Your task to perform on an android device: Open Google Image 0: 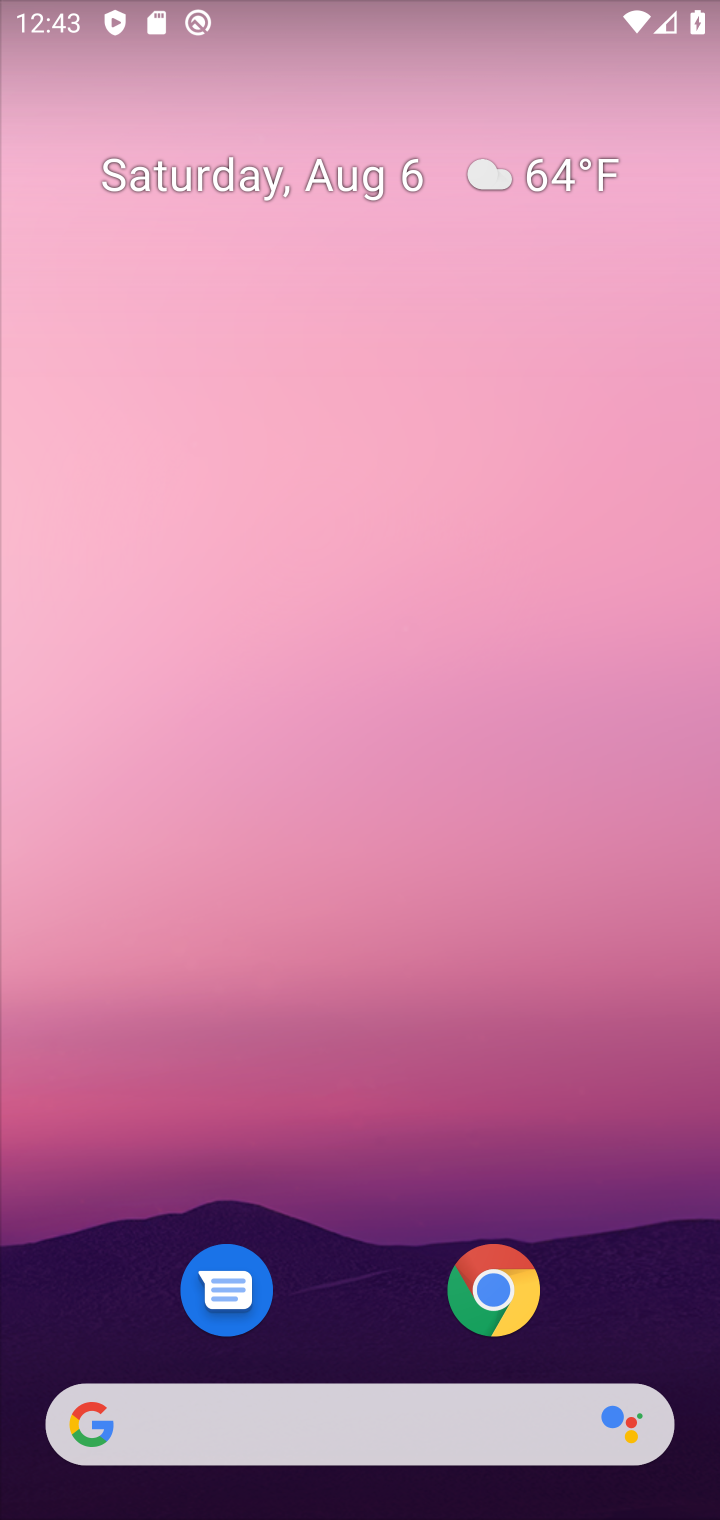
Step 0: click (367, 1422)
Your task to perform on an android device: Open Google Image 1: 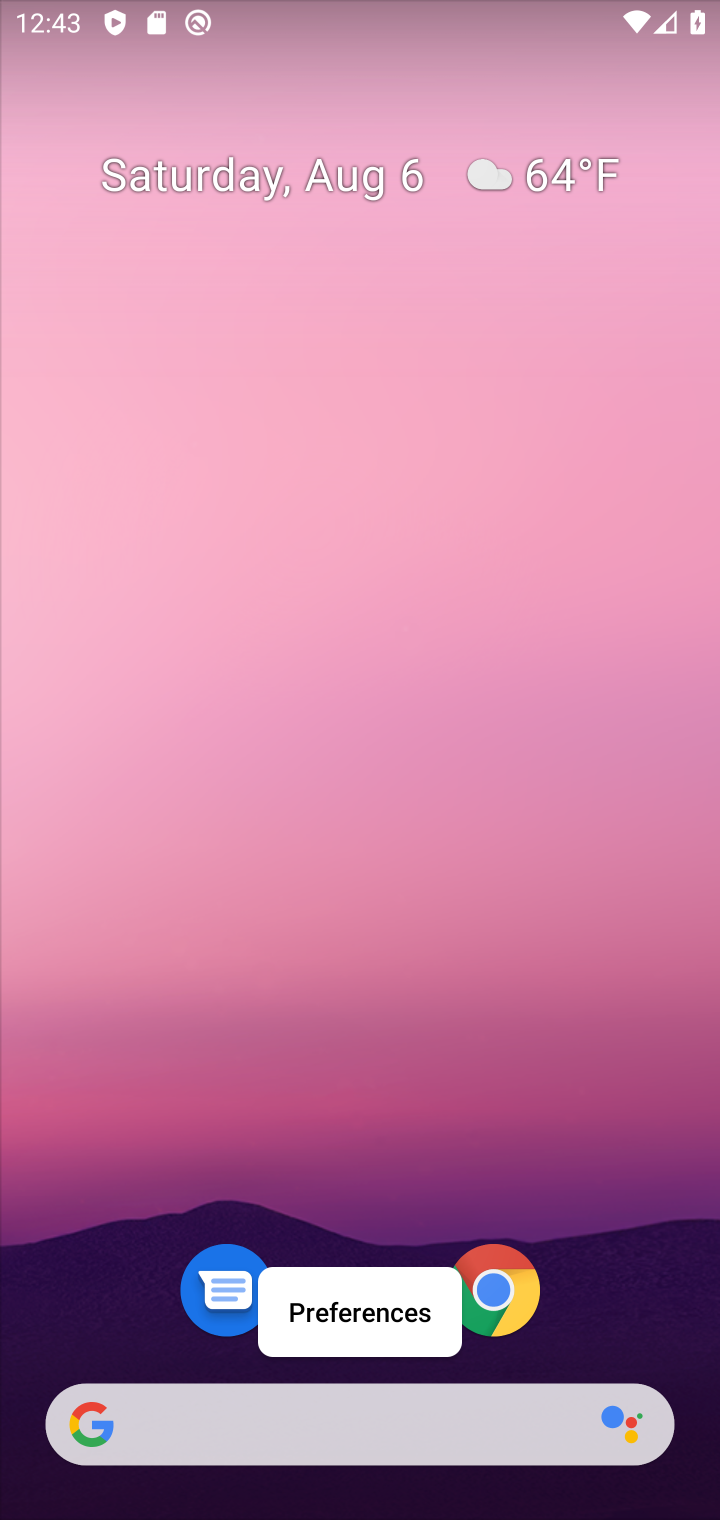
Step 1: click (351, 1432)
Your task to perform on an android device: Open Google Image 2: 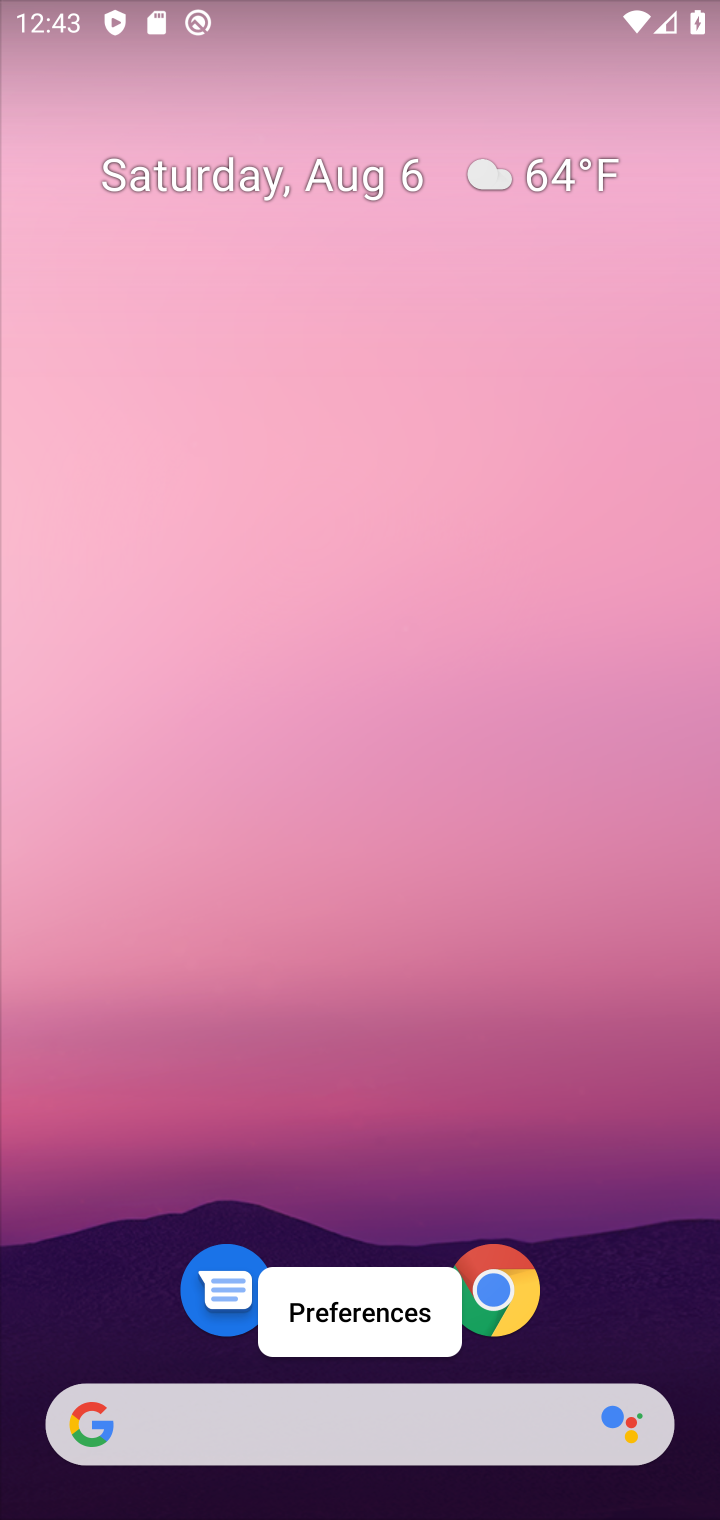
Step 2: click (257, 1413)
Your task to perform on an android device: Open Google Image 3: 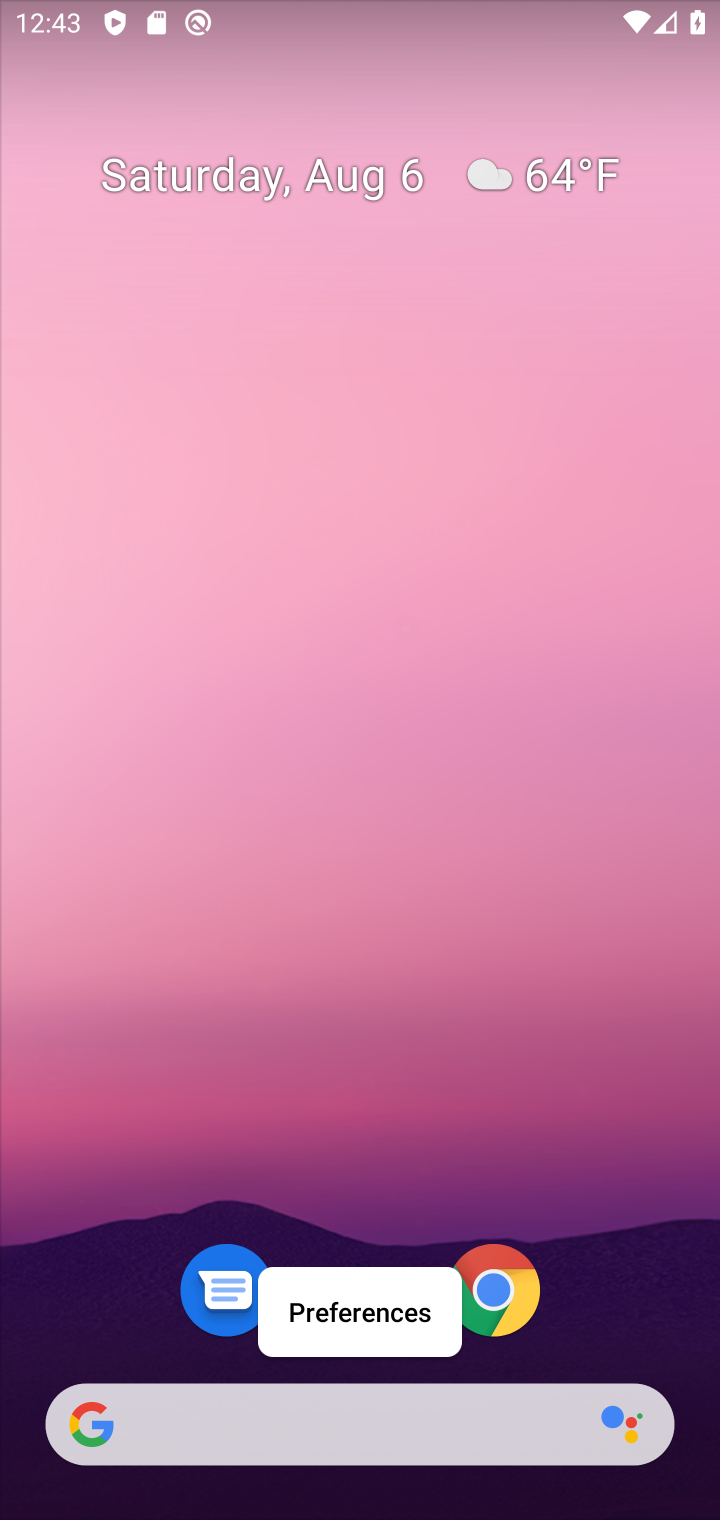
Step 3: click (418, 1443)
Your task to perform on an android device: Open Google Image 4: 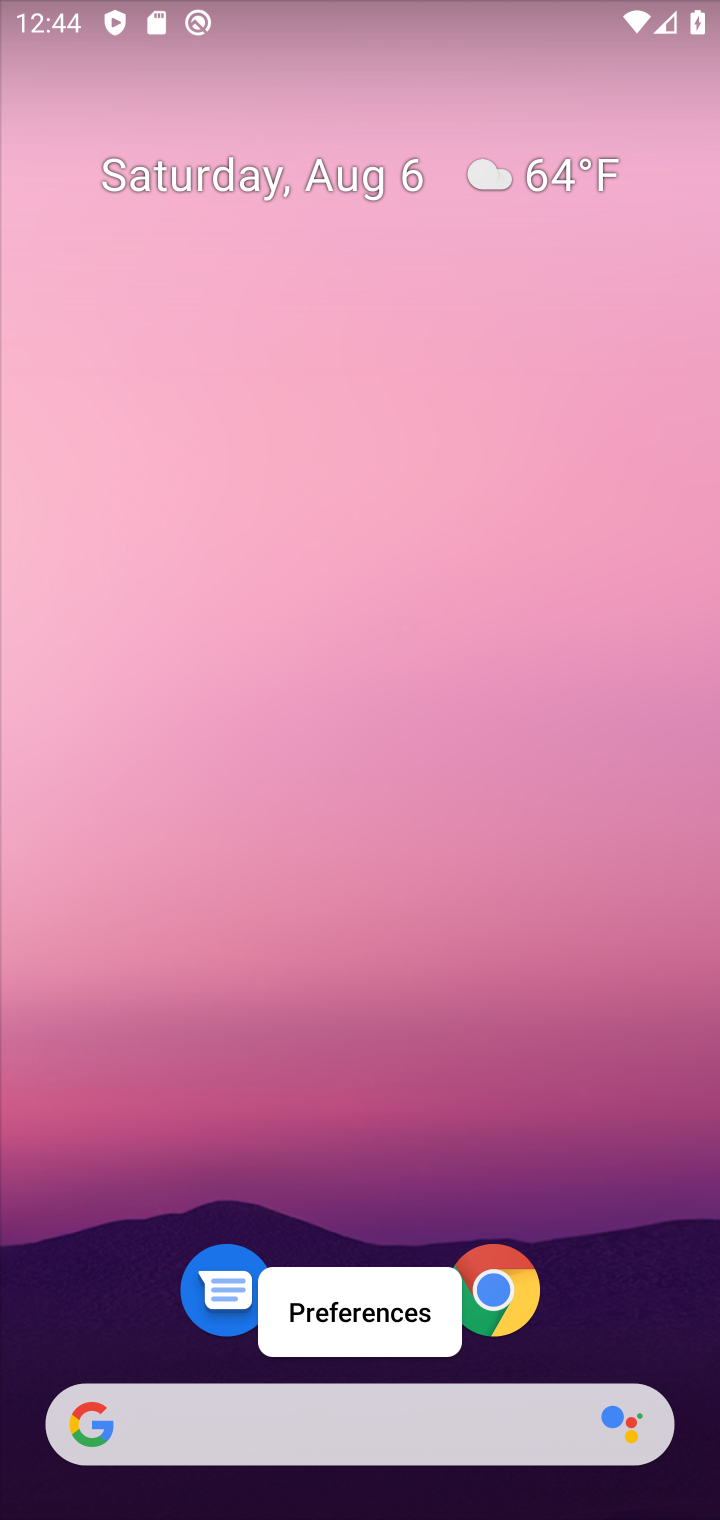
Step 4: click (416, 1441)
Your task to perform on an android device: Open Google Image 5: 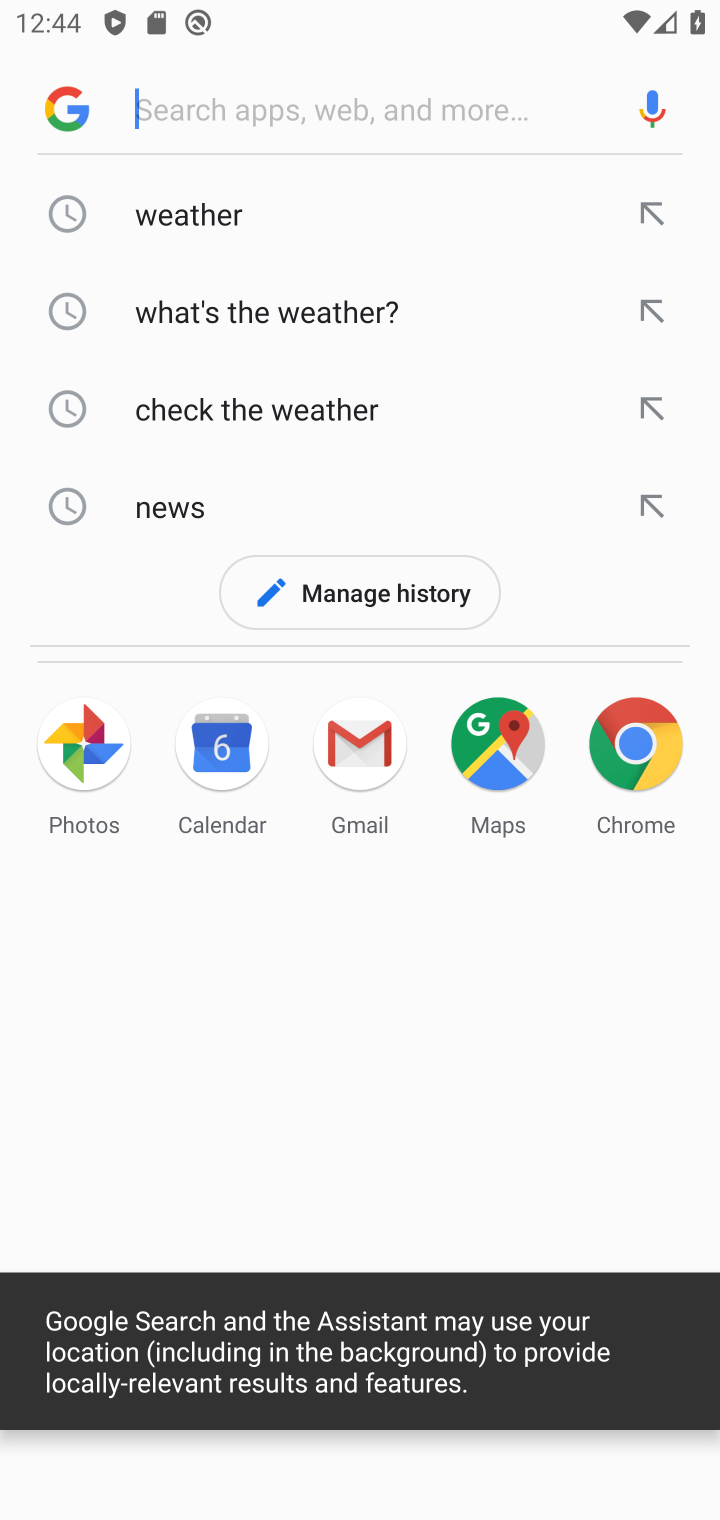
Step 5: task complete